Your task to perform on an android device: Open the phone app and click the voicemail tab. Image 0: 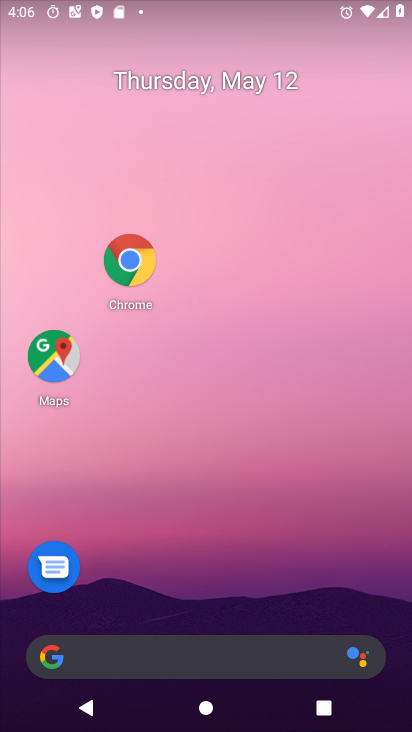
Step 0: drag from (237, 627) to (243, 242)
Your task to perform on an android device: Open the phone app and click the voicemail tab. Image 1: 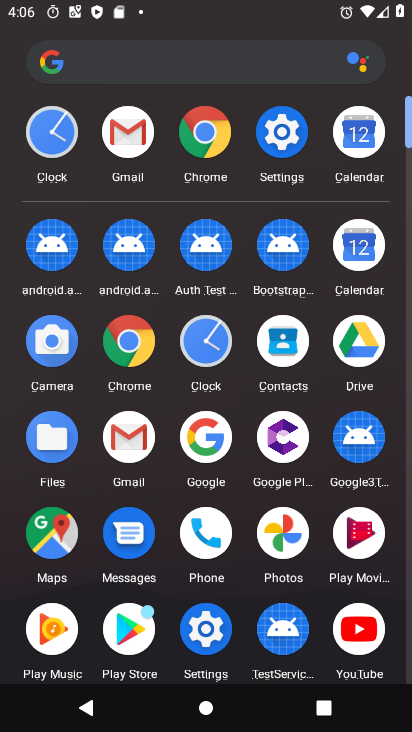
Step 1: click (204, 544)
Your task to perform on an android device: Open the phone app and click the voicemail tab. Image 2: 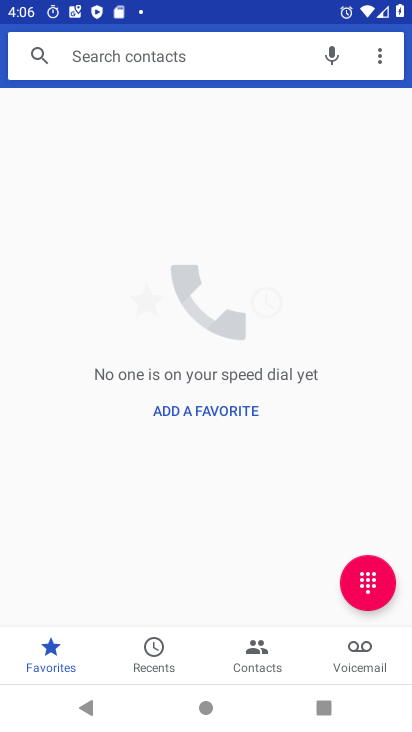
Step 2: click (365, 661)
Your task to perform on an android device: Open the phone app and click the voicemail tab. Image 3: 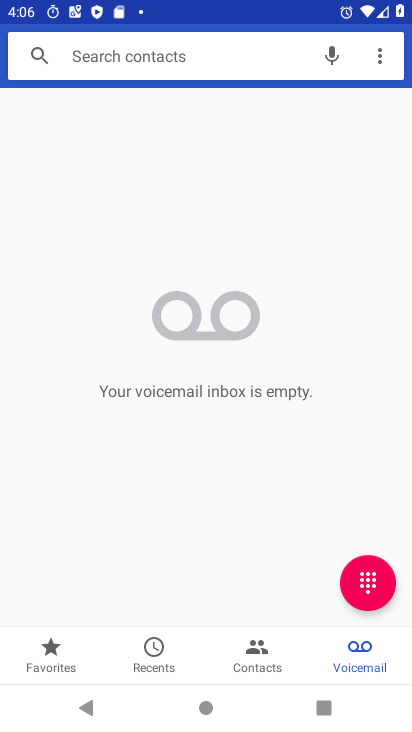
Step 3: task complete